Your task to perform on an android device: visit the assistant section in the google photos Image 0: 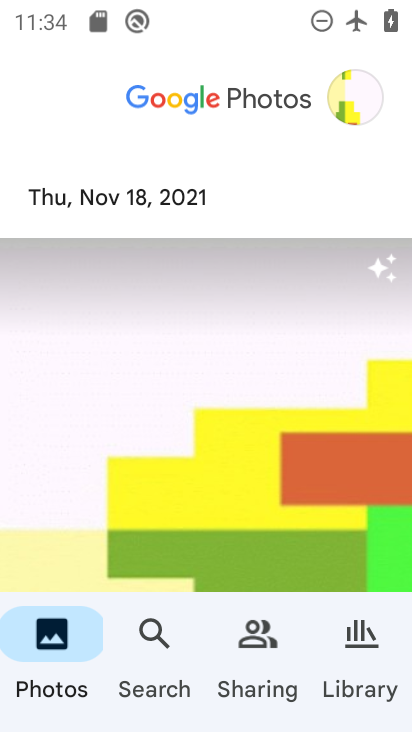
Step 0: press home button
Your task to perform on an android device: visit the assistant section in the google photos Image 1: 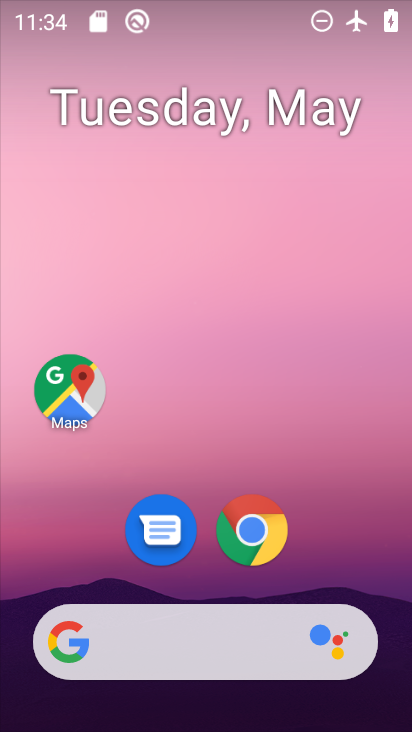
Step 1: drag from (319, 507) to (281, 165)
Your task to perform on an android device: visit the assistant section in the google photos Image 2: 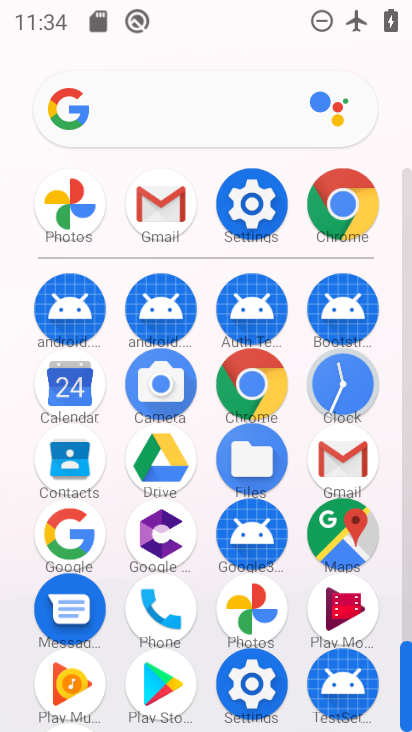
Step 2: click (256, 606)
Your task to perform on an android device: visit the assistant section in the google photos Image 3: 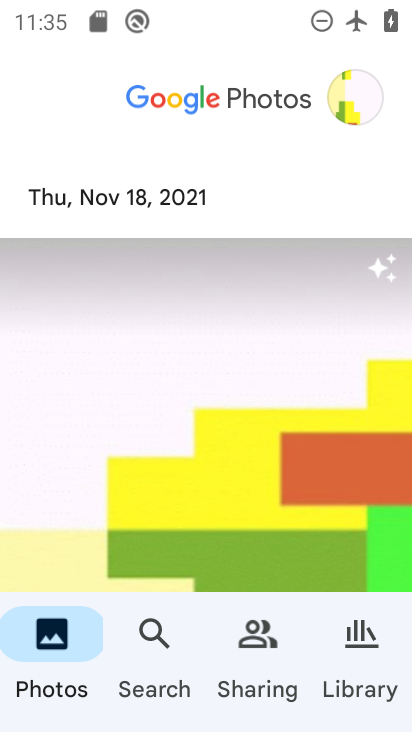
Step 3: click (365, 672)
Your task to perform on an android device: visit the assistant section in the google photos Image 4: 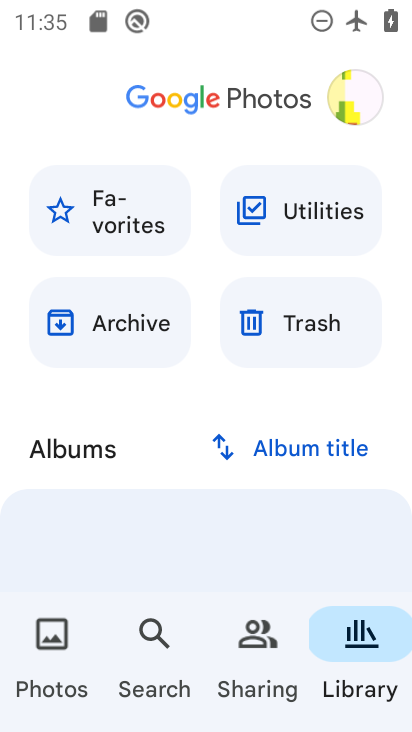
Step 4: task complete